Your task to perform on an android device: toggle javascript in the chrome app Image 0: 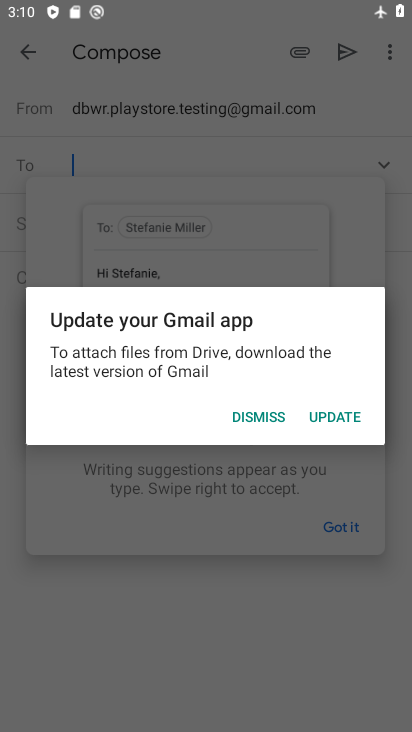
Step 0: press home button
Your task to perform on an android device: toggle javascript in the chrome app Image 1: 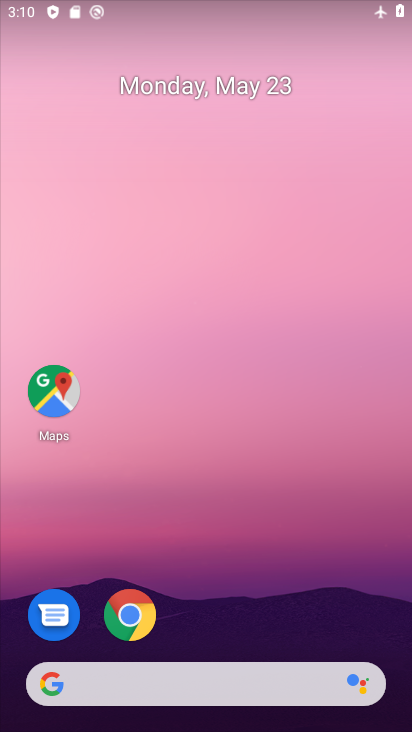
Step 1: click (140, 601)
Your task to perform on an android device: toggle javascript in the chrome app Image 2: 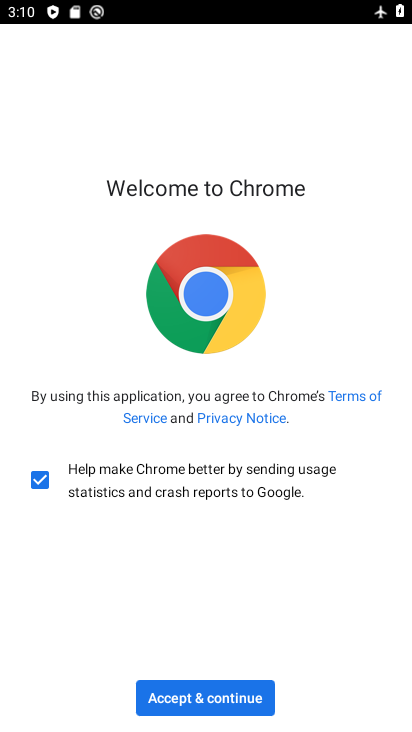
Step 2: click (241, 703)
Your task to perform on an android device: toggle javascript in the chrome app Image 3: 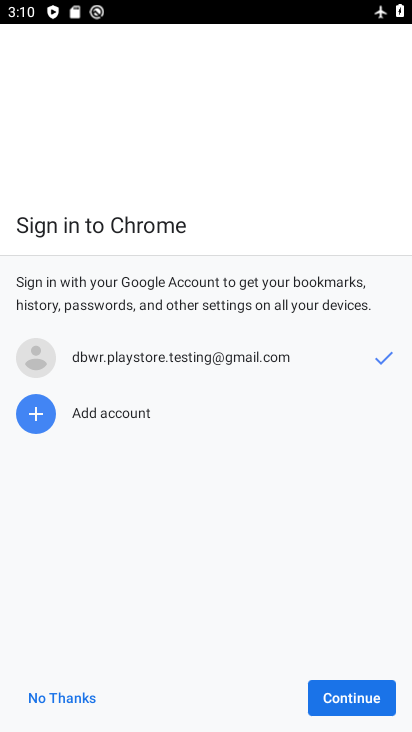
Step 3: click (343, 686)
Your task to perform on an android device: toggle javascript in the chrome app Image 4: 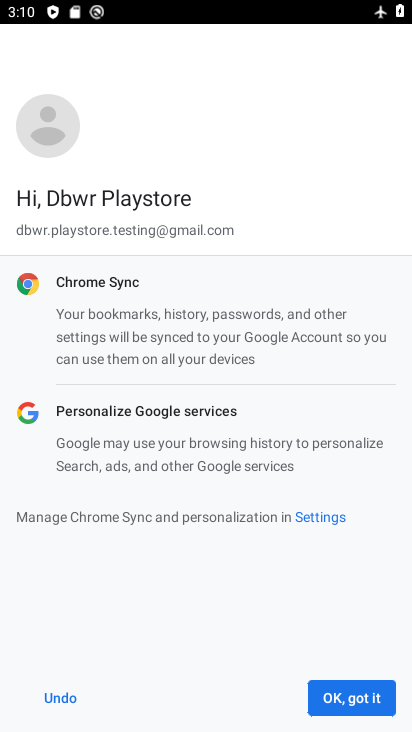
Step 4: click (380, 701)
Your task to perform on an android device: toggle javascript in the chrome app Image 5: 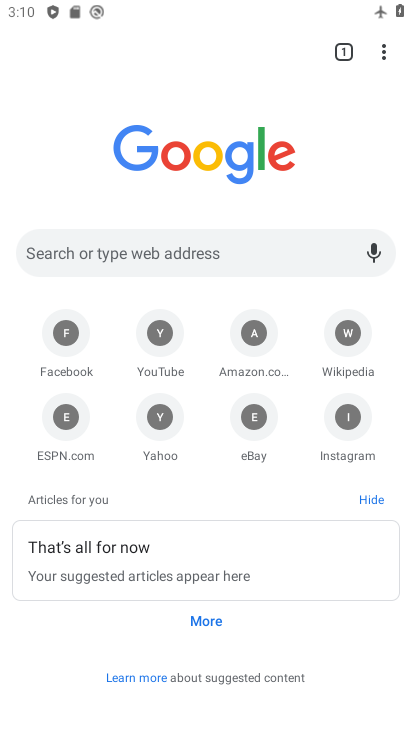
Step 5: click (385, 56)
Your task to perform on an android device: toggle javascript in the chrome app Image 6: 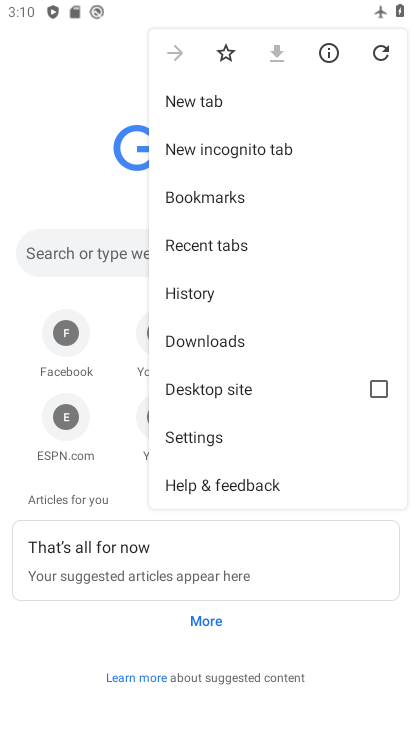
Step 6: click (240, 407)
Your task to perform on an android device: toggle javascript in the chrome app Image 7: 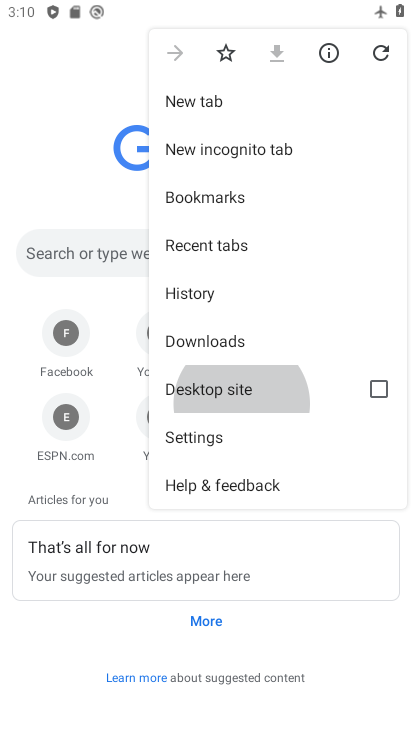
Step 7: click (236, 413)
Your task to perform on an android device: toggle javascript in the chrome app Image 8: 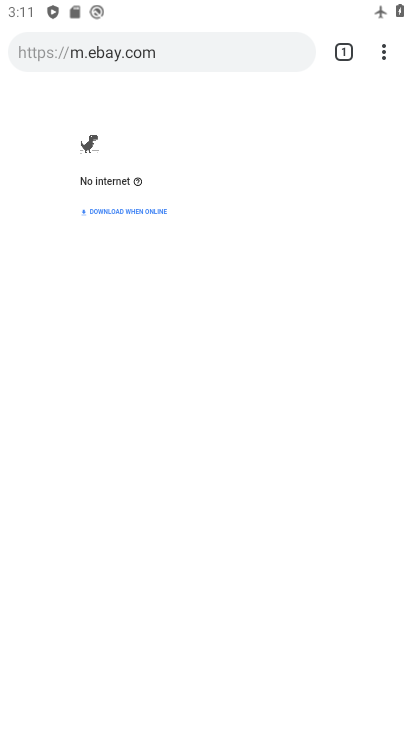
Step 8: press back button
Your task to perform on an android device: toggle javascript in the chrome app Image 9: 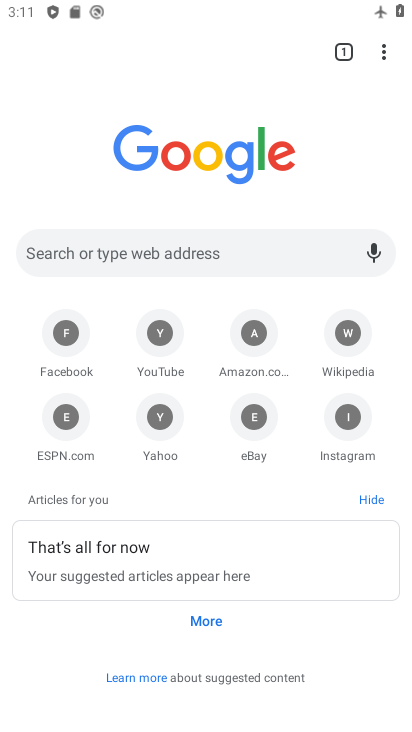
Step 9: click (390, 44)
Your task to perform on an android device: toggle javascript in the chrome app Image 10: 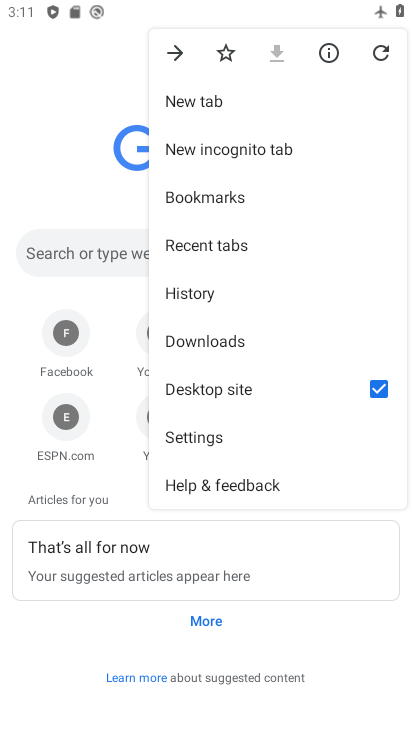
Step 10: click (220, 432)
Your task to perform on an android device: toggle javascript in the chrome app Image 11: 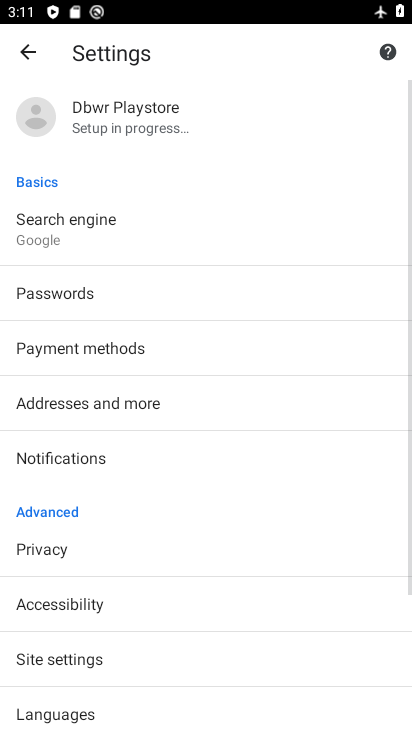
Step 11: drag from (91, 656) to (187, 327)
Your task to perform on an android device: toggle javascript in the chrome app Image 12: 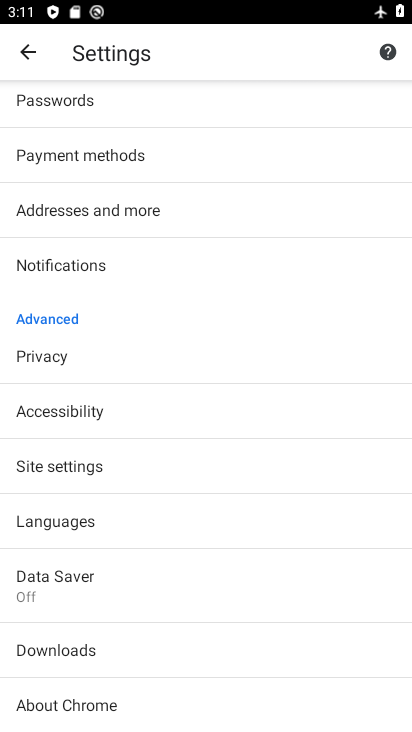
Step 12: click (97, 463)
Your task to perform on an android device: toggle javascript in the chrome app Image 13: 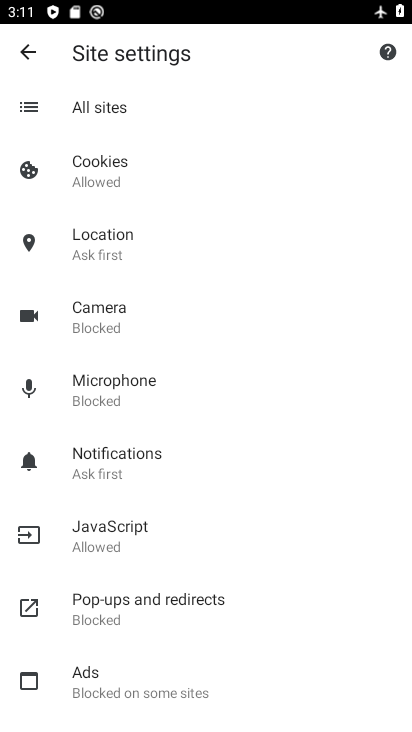
Step 13: click (149, 541)
Your task to perform on an android device: toggle javascript in the chrome app Image 14: 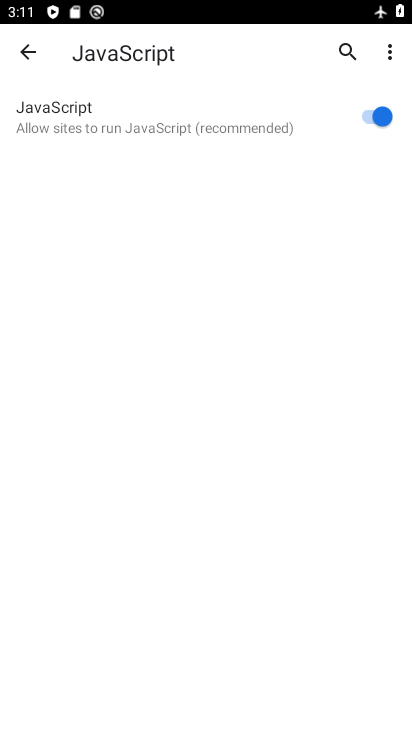
Step 14: click (375, 113)
Your task to perform on an android device: toggle javascript in the chrome app Image 15: 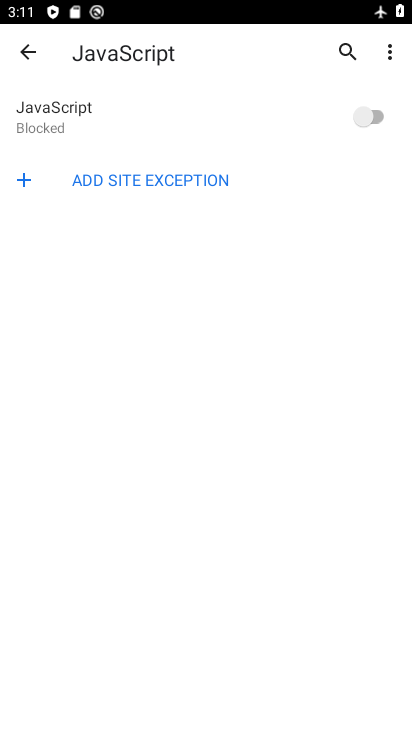
Step 15: task complete